Your task to perform on an android device: Do I have any events this weekend? Image 0: 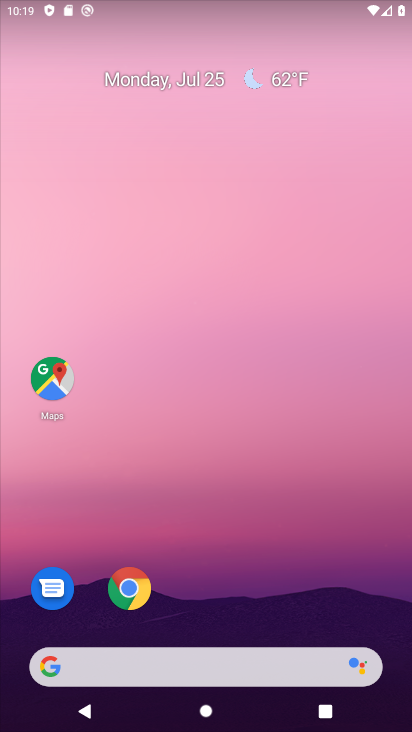
Step 0: click (226, 176)
Your task to perform on an android device: Do I have any events this weekend? Image 1: 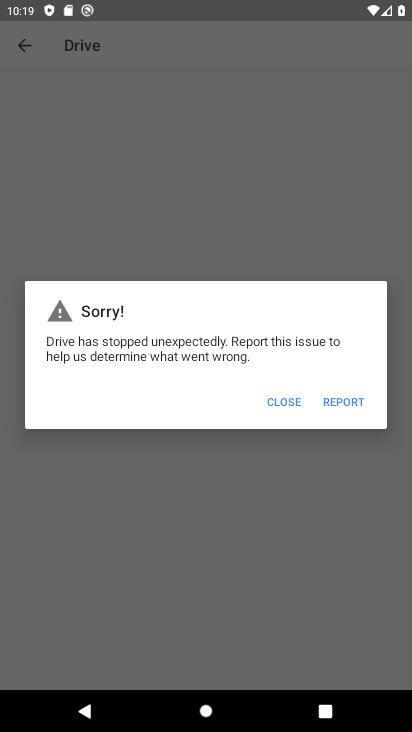
Step 1: press home button
Your task to perform on an android device: Do I have any events this weekend? Image 2: 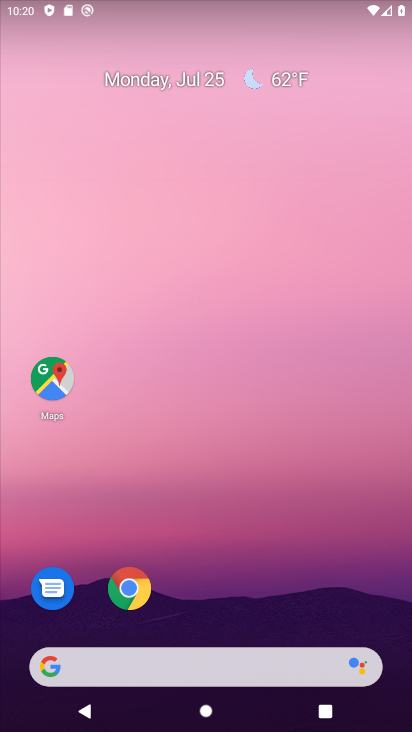
Step 2: drag from (28, 538) to (279, 84)
Your task to perform on an android device: Do I have any events this weekend? Image 3: 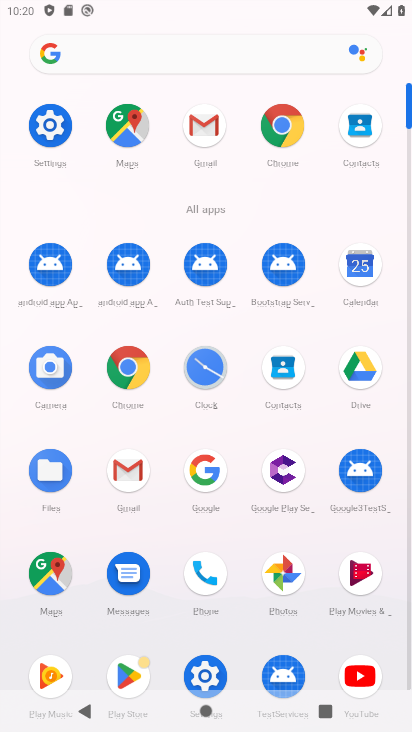
Step 3: click (357, 264)
Your task to perform on an android device: Do I have any events this weekend? Image 4: 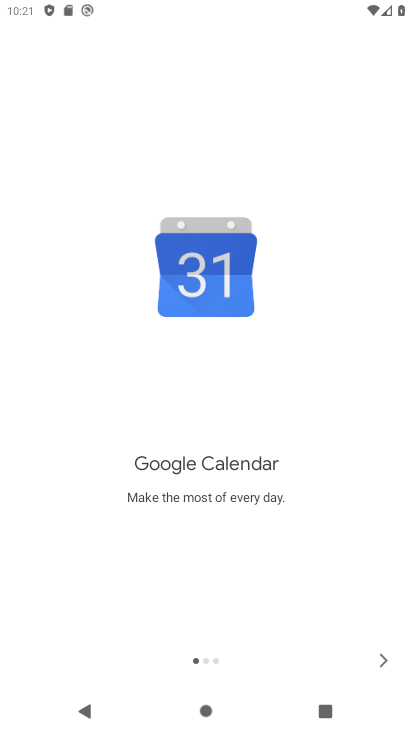
Step 4: click (380, 658)
Your task to perform on an android device: Do I have any events this weekend? Image 5: 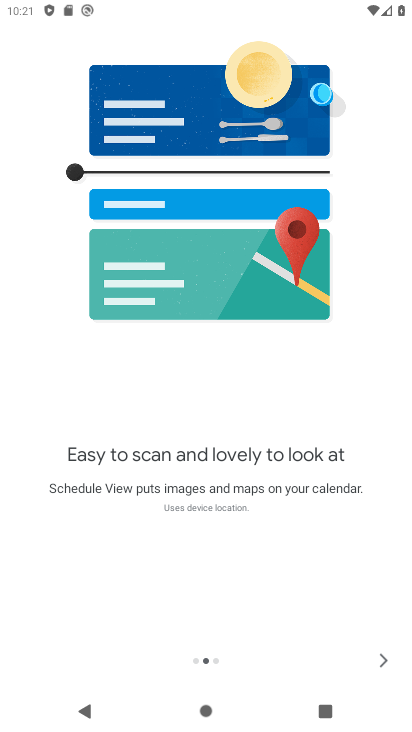
Step 5: click (380, 666)
Your task to perform on an android device: Do I have any events this weekend? Image 6: 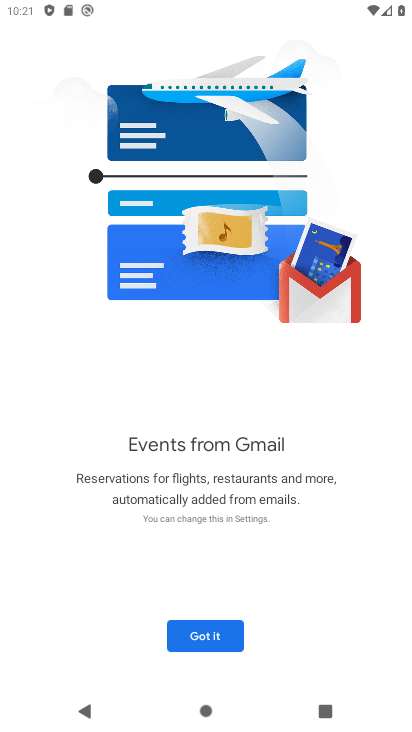
Step 6: click (206, 631)
Your task to perform on an android device: Do I have any events this weekend? Image 7: 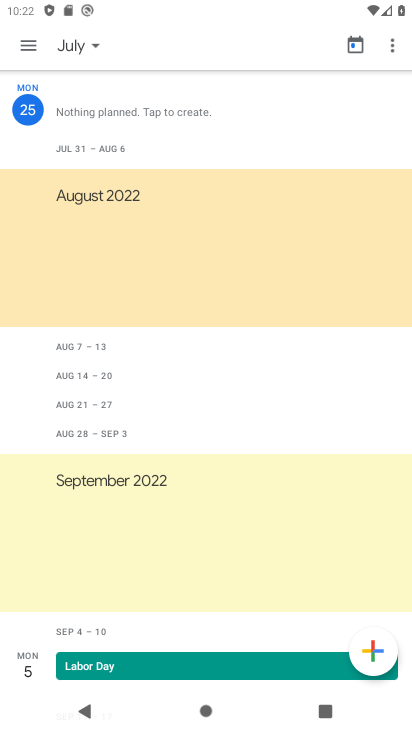
Step 7: click (81, 49)
Your task to perform on an android device: Do I have any events this weekend? Image 8: 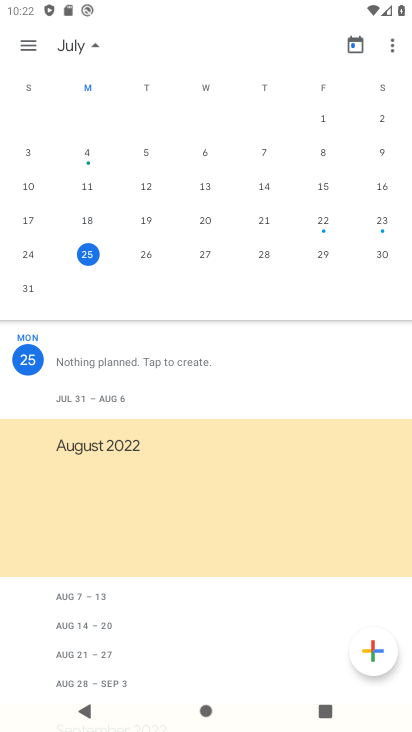
Step 8: click (330, 249)
Your task to perform on an android device: Do I have any events this weekend? Image 9: 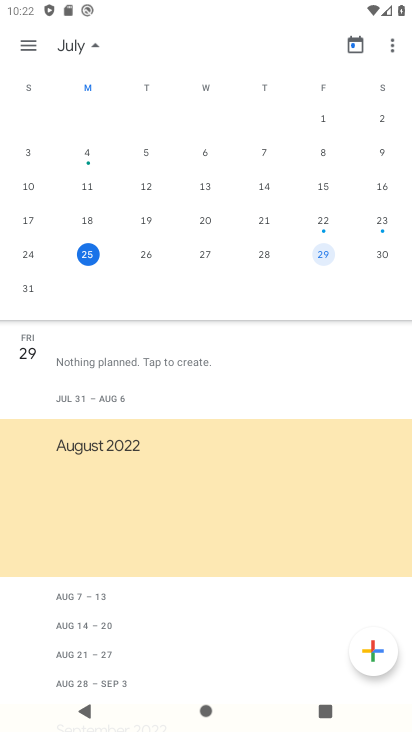
Step 9: click (396, 252)
Your task to perform on an android device: Do I have any events this weekend? Image 10: 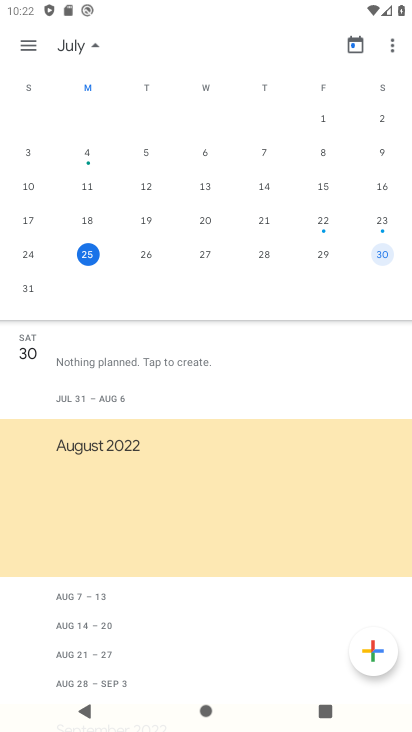
Step 10: click (31, 293)
Your task to perform on an android device: Do I have any events this weekend? Image 11: 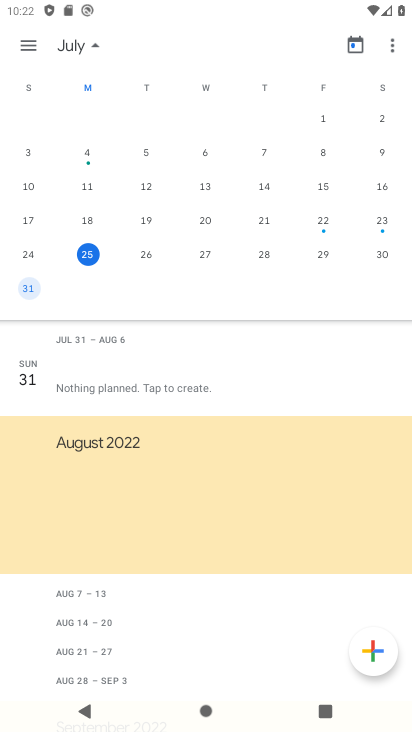
Step 11: task complete